Your task to perform on an android device: Go to Yahoo.com Image 0: 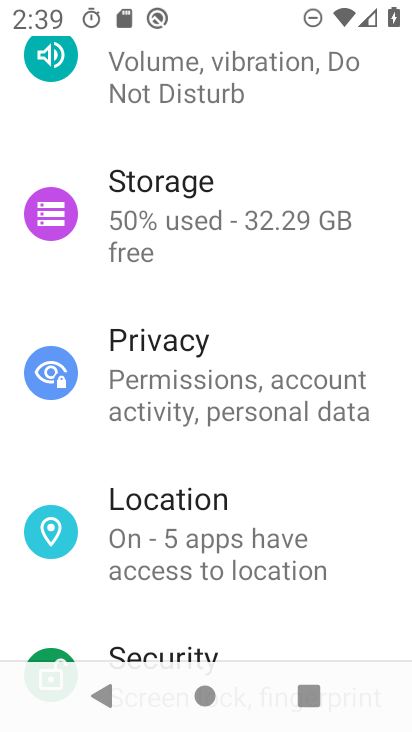
Step 0: press home button
Your task to perform on an android device: Go to Yahoo.com Image 1: 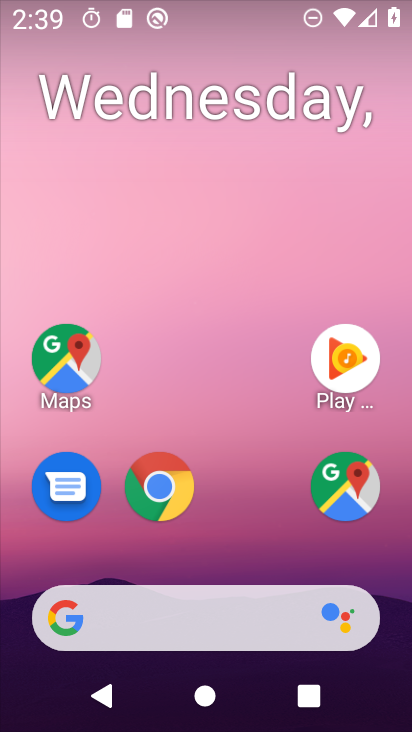
Step 1: drag from (266, 531) to (238, 97)
Your task to perform on an android device: Go to Yahoo.com Image 2: 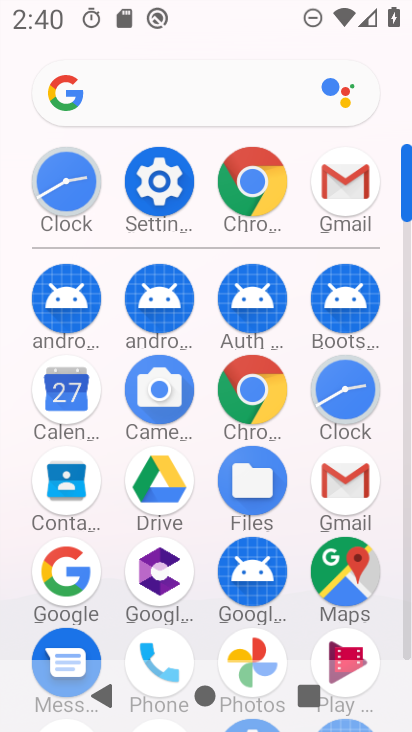
Step 2: click (256, 391)
Your task to perform on an android device: Go to Yahoo.com Image 3: 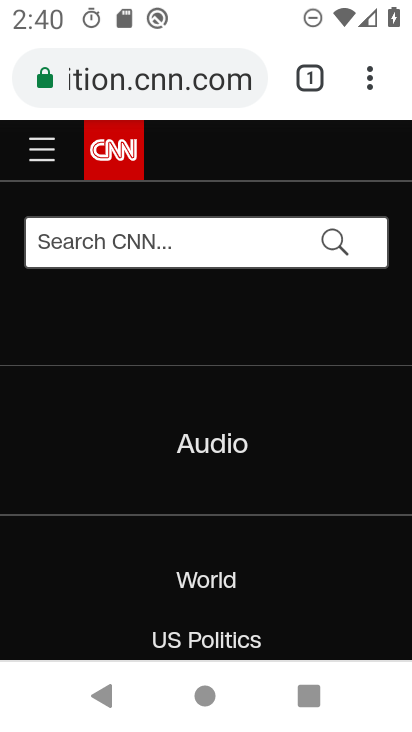
Step 3: click (217, 82)
Your task to perform on an android device: Go to Yahoo.com Image 4: 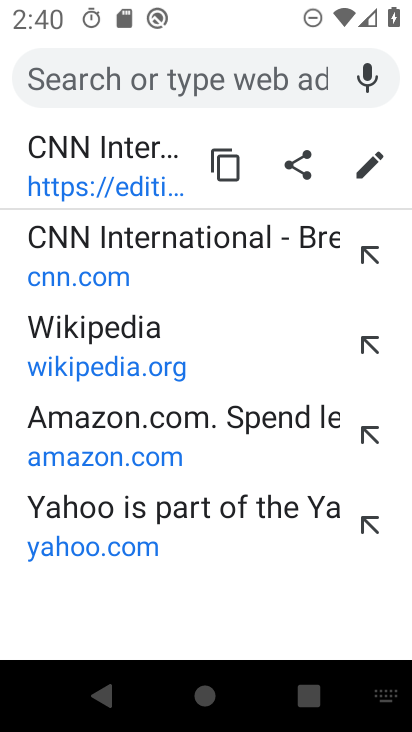
Step 4: type "yahoo.com"
Your task to perform on an android device: Go to Yahoo.com Image 5: 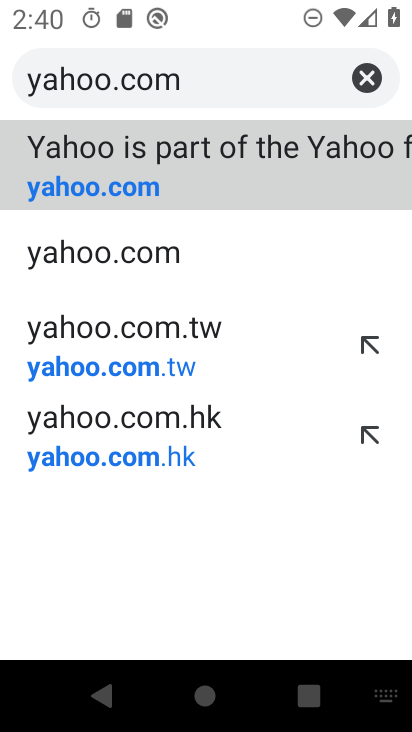
Step 5: click (346, 168)
Your task to perform on an android device: Go to Yahoo.com Image 6: 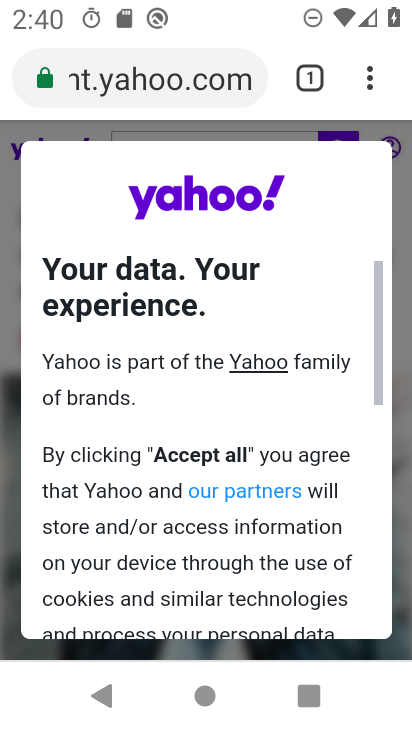
Step 6: task complete